Your task to perform on an android device: empty trash in google photos Image 0: 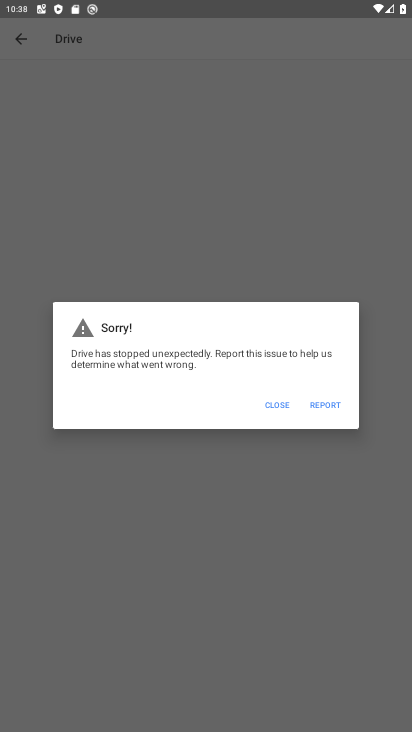
Step 0: press home button
Your task to perform on an android device: empty trash in google photos Image 1: 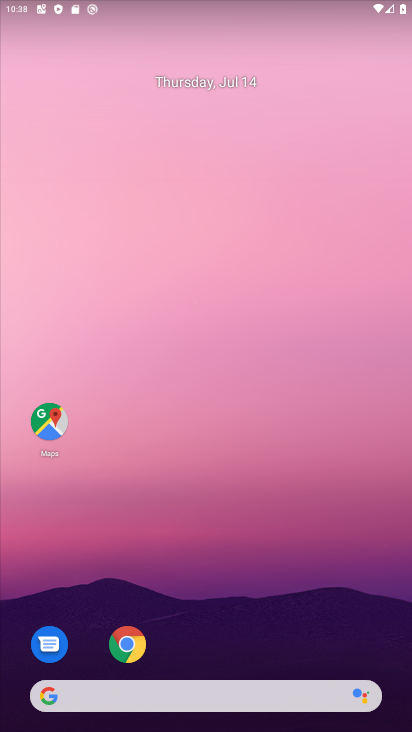
Step 1: drag from (211, 697) to (281, 160)
Your task to perform on an android device: empty trash in google photos Image 2: 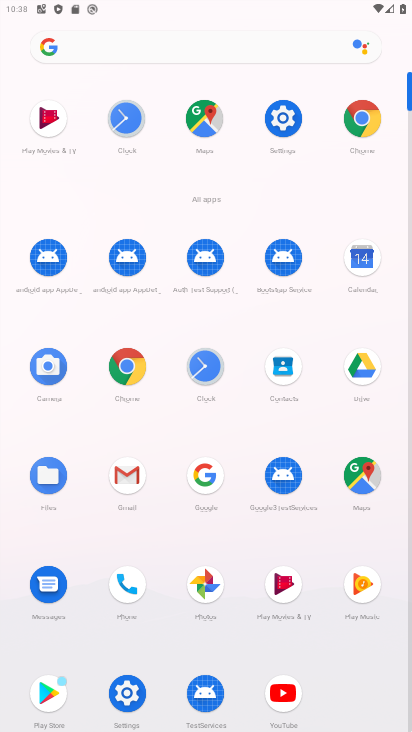
Step 2: click (194, 582)
Your task to perform on an android device: empty trash in google photos Image 3: 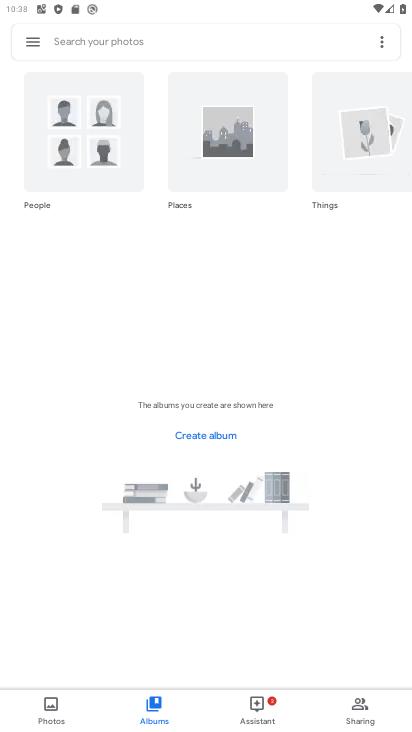
Step 3: click (28, 44)
Your task to perform on an android device: empty trash in google photos Image 4: 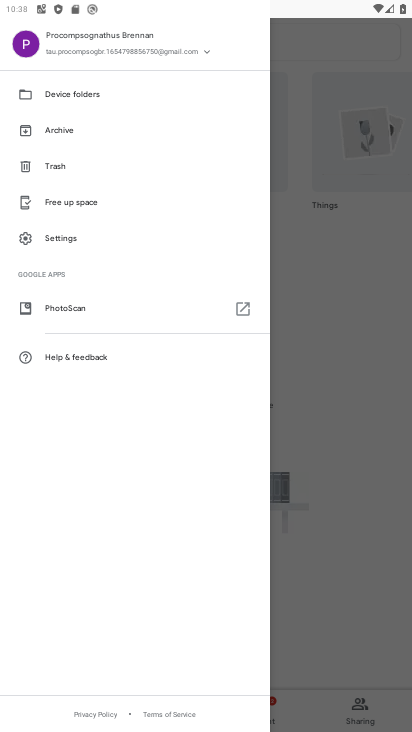
Step 4: click (55, 170)
Your task to perform on an android device: empty trash in google photos Image 5: 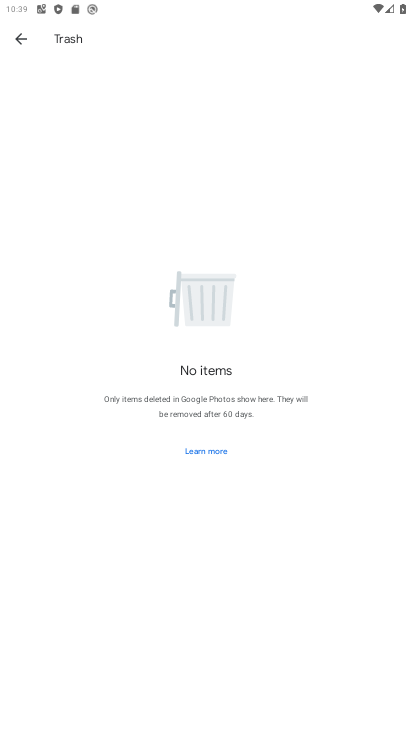
Step 5: task complete